Your task to perform on an android device: check battery use Image 0: 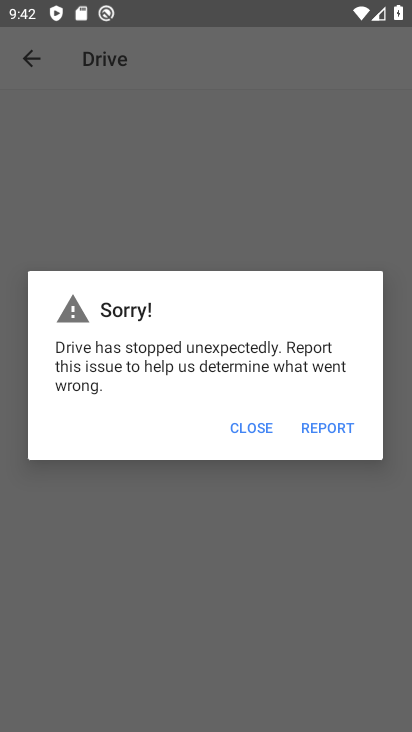
Step 0: press home button
Your task to perform on an android device: check battery use Image 1: 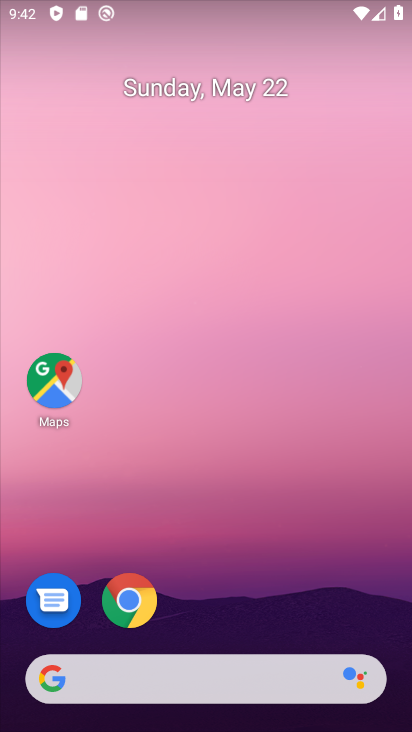
Step 1: drag from (233, 588) to (187, 261)
Your task to perform on an android device: check battery use Image 2: 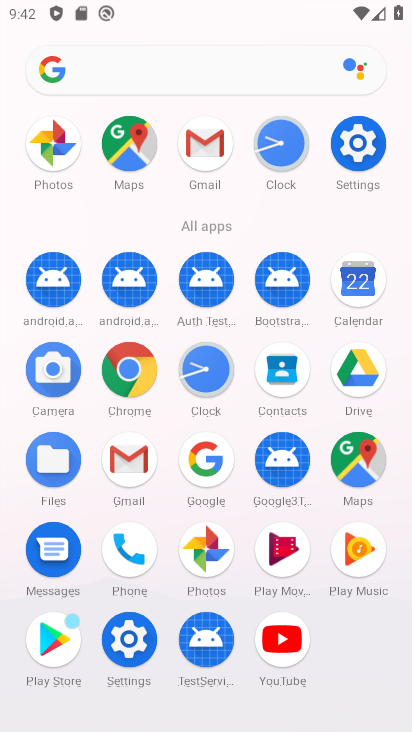
Step 2: click (356, 144)
Your task to perform on an android device: check battery use Image 3: 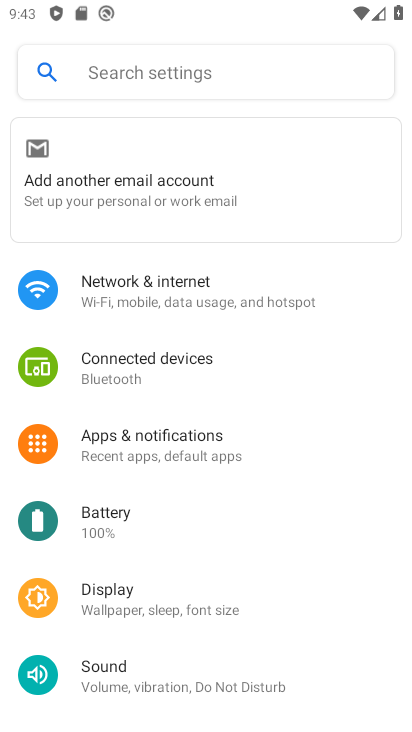
Step 3: click (114, 512)
Your task to perform on an android device: check battery use Image 4: 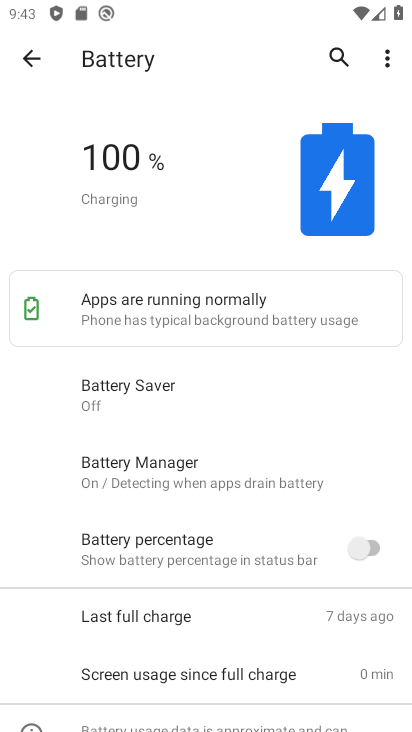
Step 4: click (388, 62)
Your task to perform on an android device: check battery use Image 5: 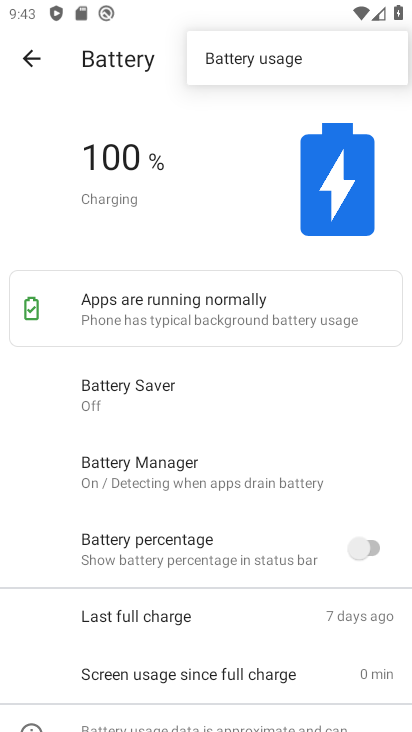
Step 5: click (263, 52)
Your task to perform on an android device: check battery use Image 6: 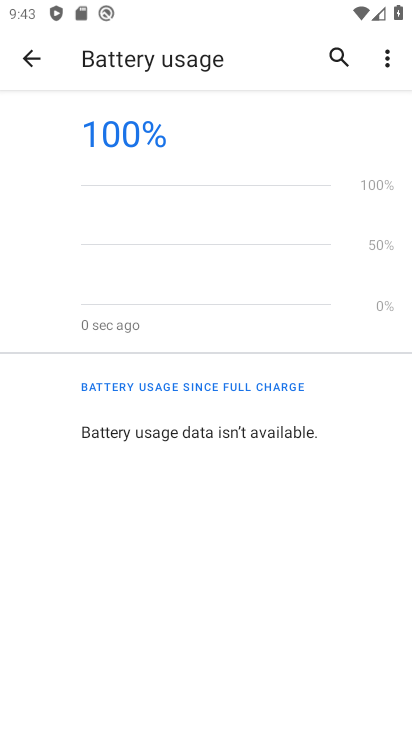
Step 6: task complete